Your task to perform on an android device: add a contact in the contacts app Image 0: 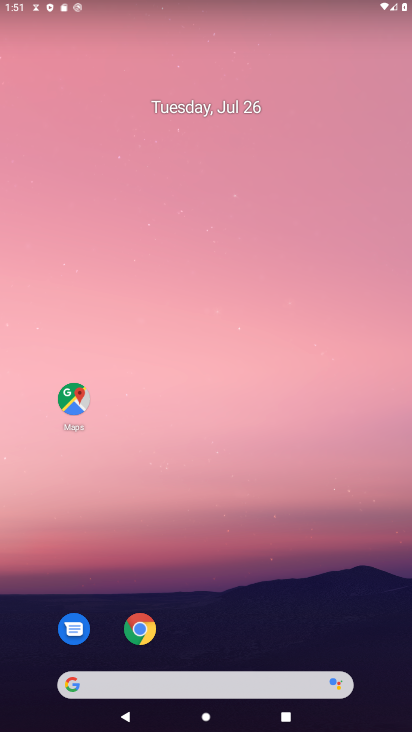
Step 0: drag from (226, 693) to (313, 102)
Your task to perform on an android device: add a contact in the contacts app Image 1: 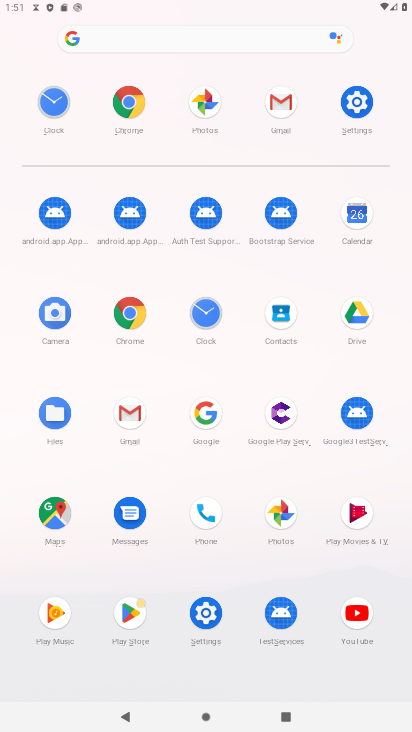
Step 1: click (273, 312)
Your task to perform on an android device: add a contact in the contacts app Image 2: 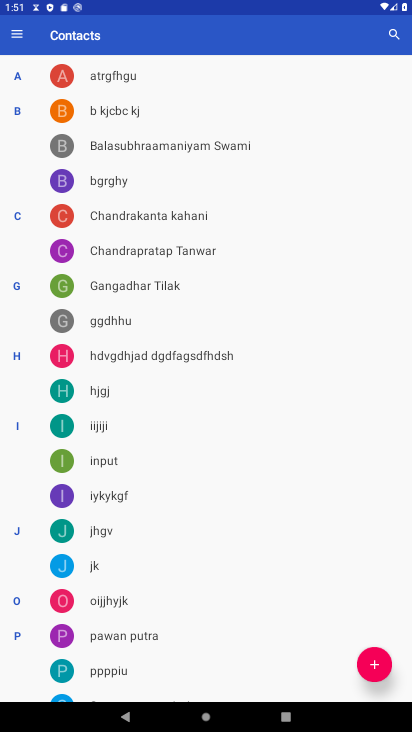
Step 2: click (385, 658)
Your task to perform on an android device: add a contact in the contacts app Image 3: 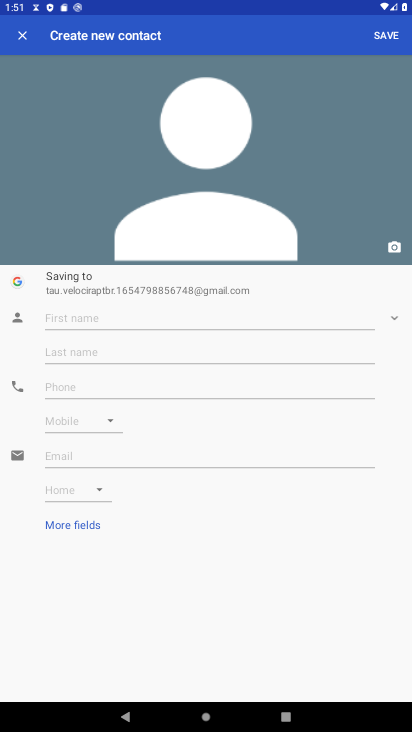
Step 3: click (53, 317)
Your task to perform on an android device: add a contact in the contacts app Image 4: 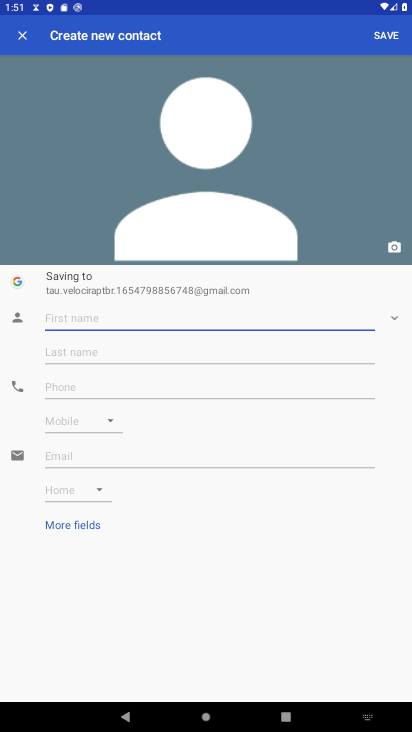
Step 4: type "pony"
Your task to perform on an android device: add a contact in the contacts app Image 5: 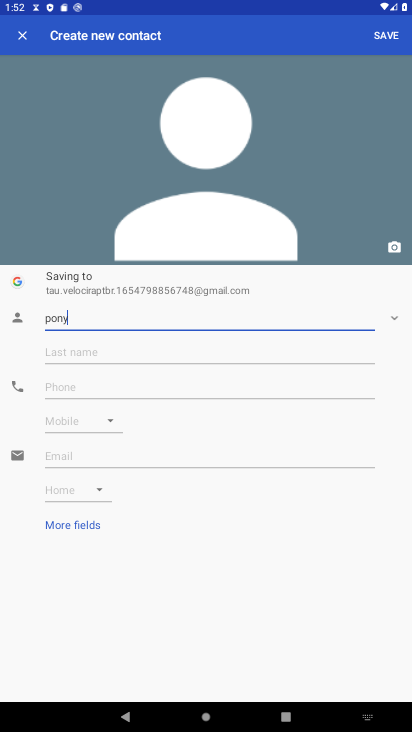
Step 5: click (98, 393)
Your task to perform on an android device: add a contact in the contacts app Image 6: 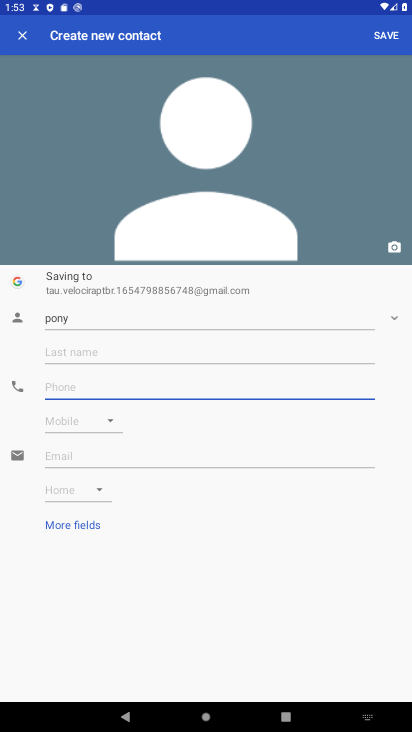
Step 6: type "9897908767"
Your task to perform on an android device: add a contact in the contacts app Image 7: 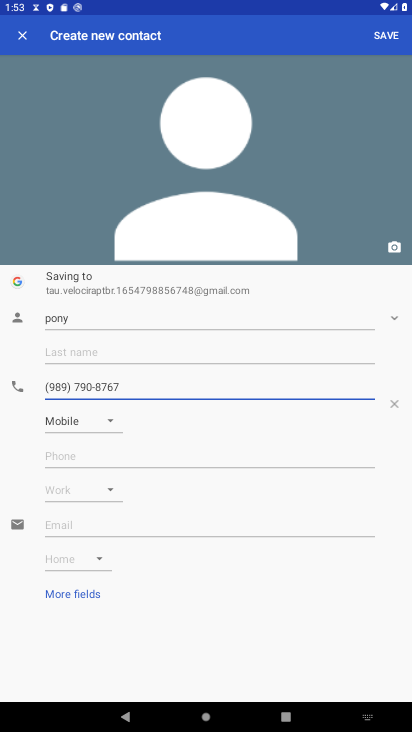
Step 7: click (395, 33)
Your task to perform on an android device: add a contact in the contacts app Image 8: 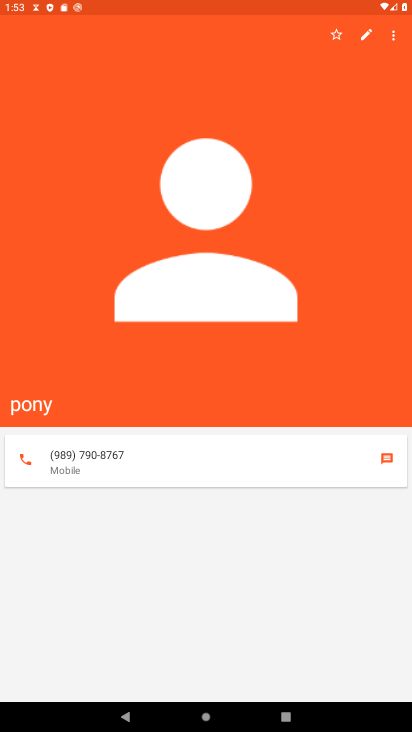
Step 8: task complete